Your task to perform on an android device: Search for seafood restaurants on Google Maps Image 0: 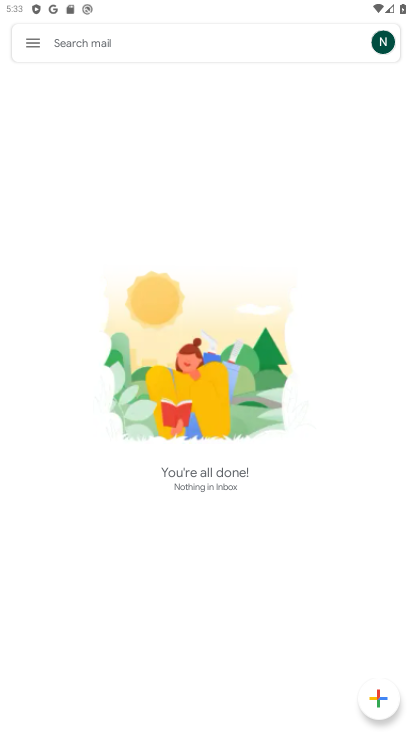
Step 0: press home button
Your task to perform on an android device: Search for seafood restaurants on Google Maps Image 1: 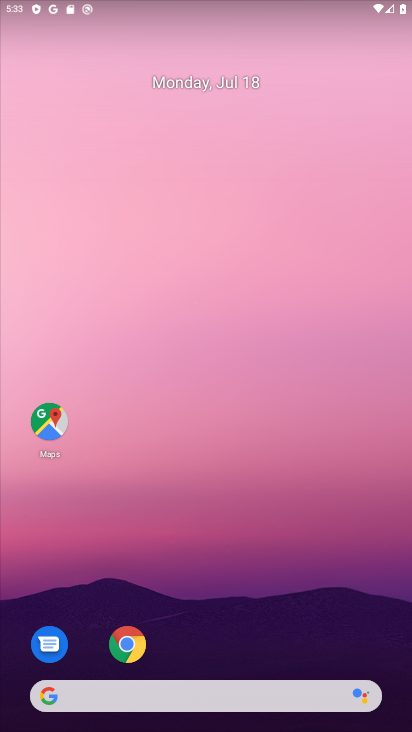
Step 1: click (48, 414)
Your task to perform on an android device: Search for seafood restaurants on Google Maps Image 2: 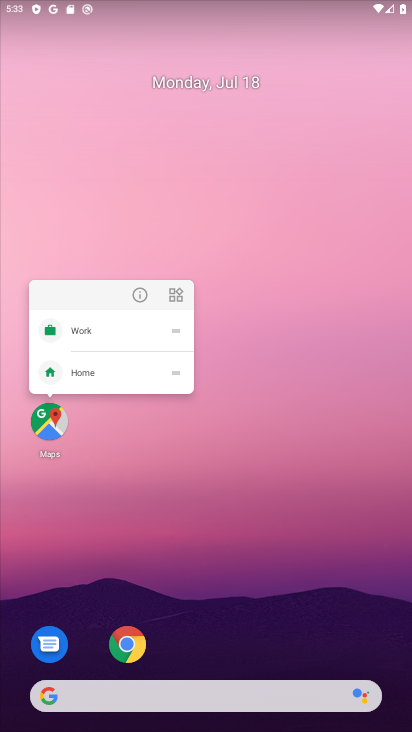
Step 2: click (54, 414)
Your task to perform on an android device: Search for seafood restaurants on Google Maps Image 3: 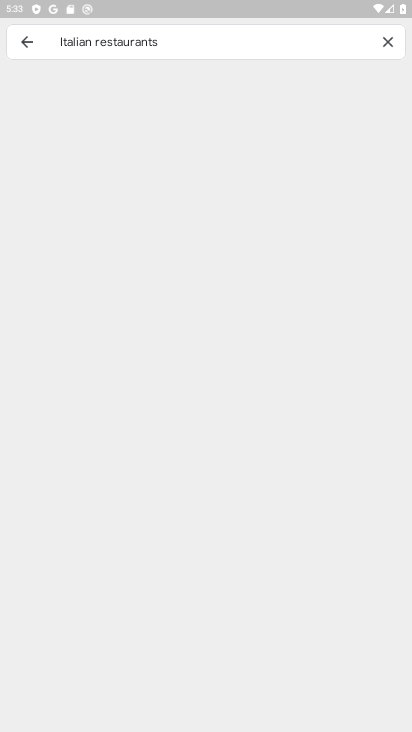
Step 3: click (23, 44)
Your task to perform on an android device: Search for seafood restaurants on Google Maps Image 4: 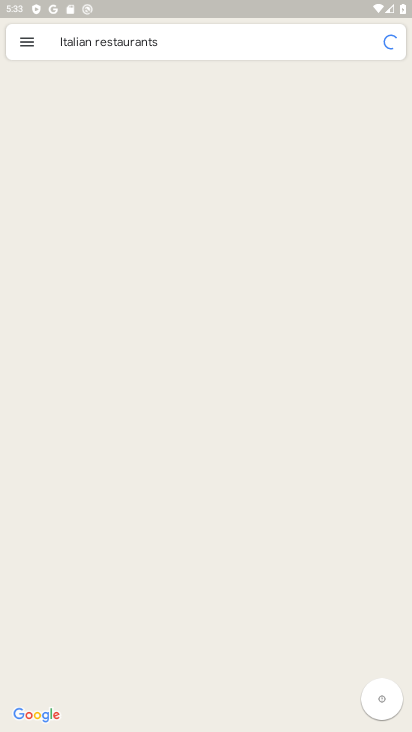
Step 4: click (171, 42)
Your task to perform on an android device: Search for seafood restaurants on Google Maps Image 5: 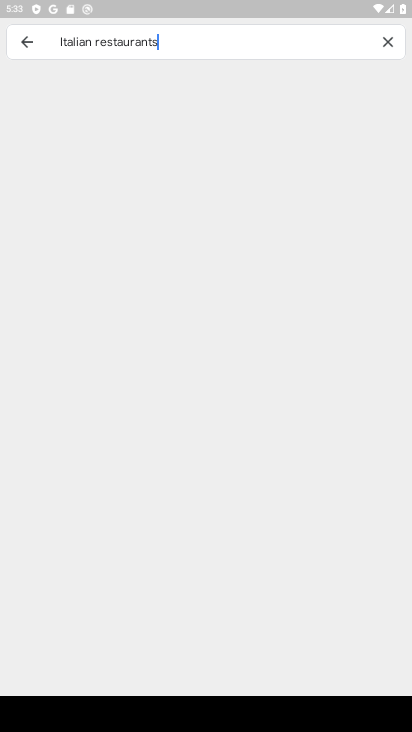
Step 5: click (391, 38)
Your task to perform on an android device: Search for seafood restaurants on Google Maps Image 6: 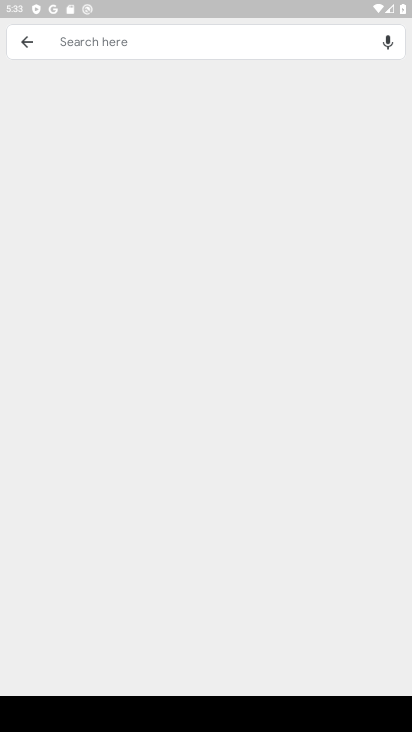
Step 6: type "seafood restaurants"
Your task to perform on an android device: Search for seafood restaurants on Google Maps Image 7: 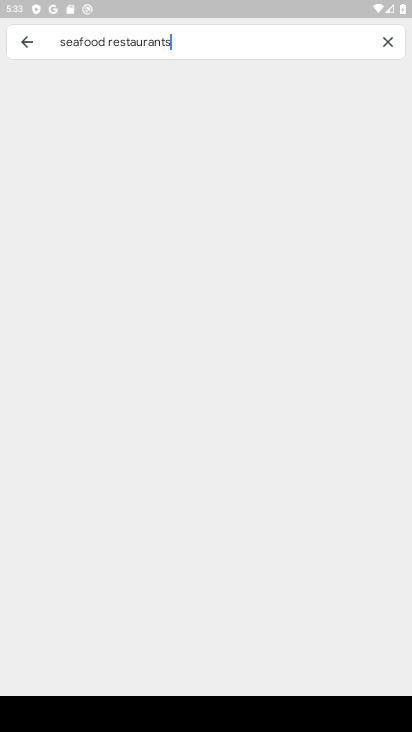
Step 7: press enter
Your task to perform on an android device: Search for seafood restaurants on Google Maps Image 8: 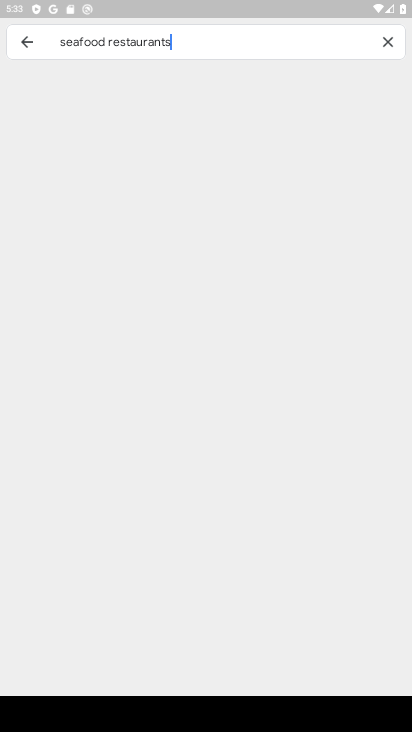
Step 8: click (92, 41)
Your task to perform on an android device: Search for seafood restaurants on Google Maps Image 9: 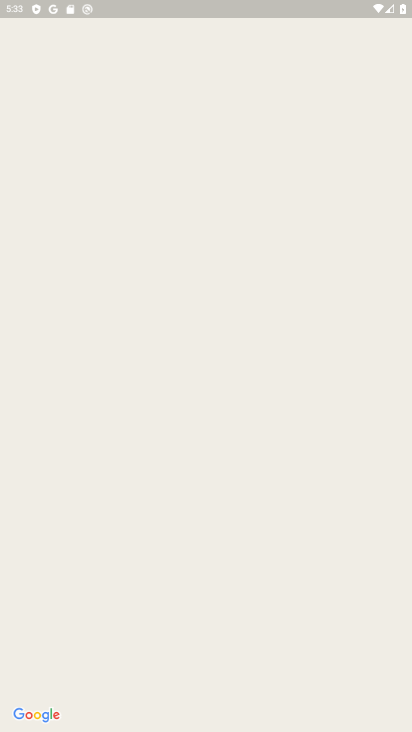
Step 9: press enter
Your task to perform on an android device: Search for seafood restaurants on Google Maps Image 10: 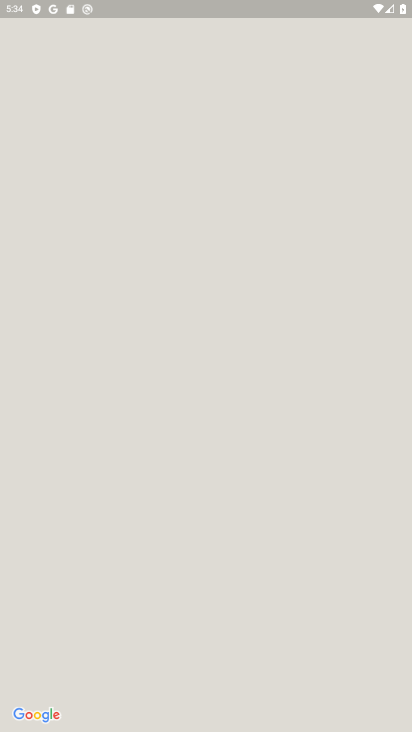
Step 10: task complete